Your task to perform on an android device: turn off javascript in the chrome app Image 0: 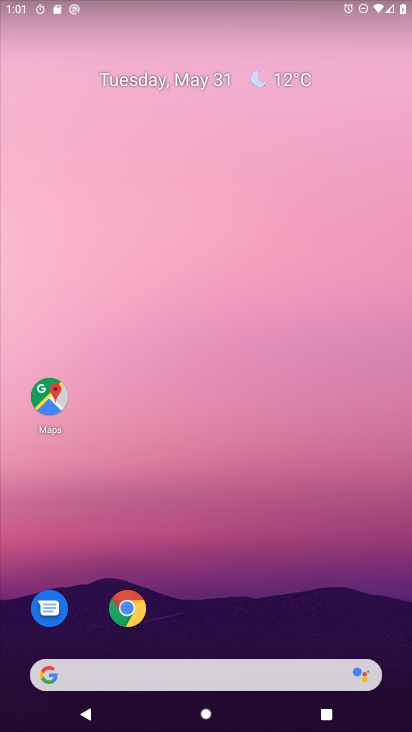
Step 0: click (122, 610)
Your task to perform on an android device: turn off javascript in the chrome app Image 1: 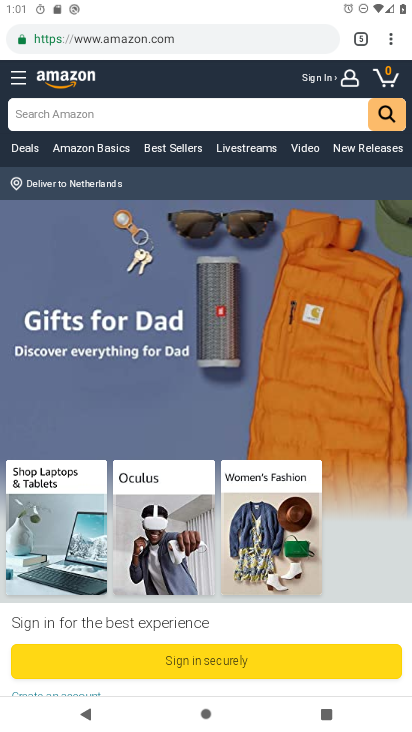
Step 1: click (389, 39)
Your task to perform on an android device: turn off javascript in the chrome app Image 2: 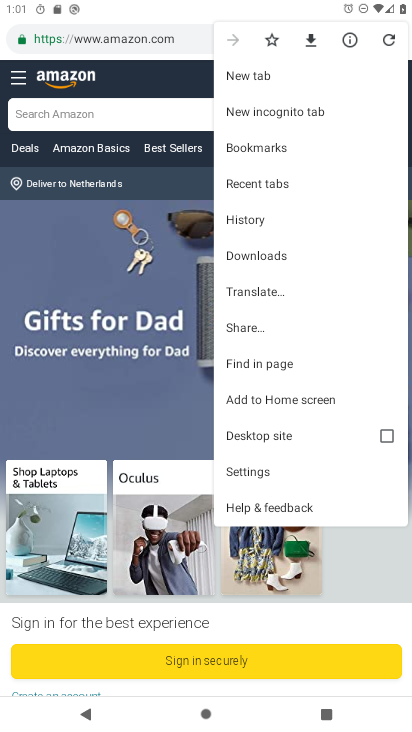
Step 2: click (252, 469)
Your task to perform on an android device: turn off javascript in the chrome app Image 3: 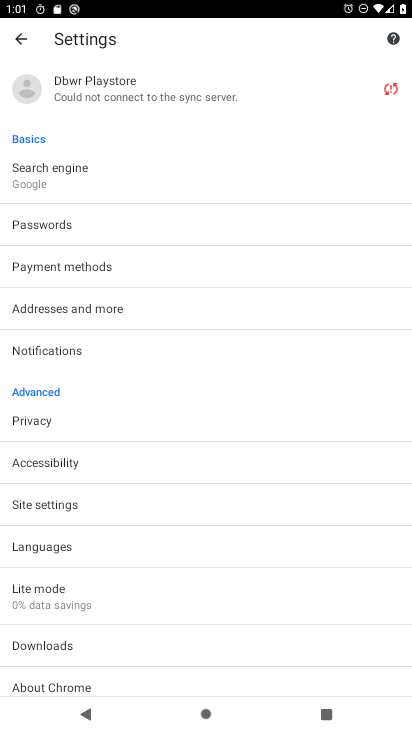
Step 3: click (58, 499)
Your task to perform on an android device: turn off javascript in the chrome app Image 4: 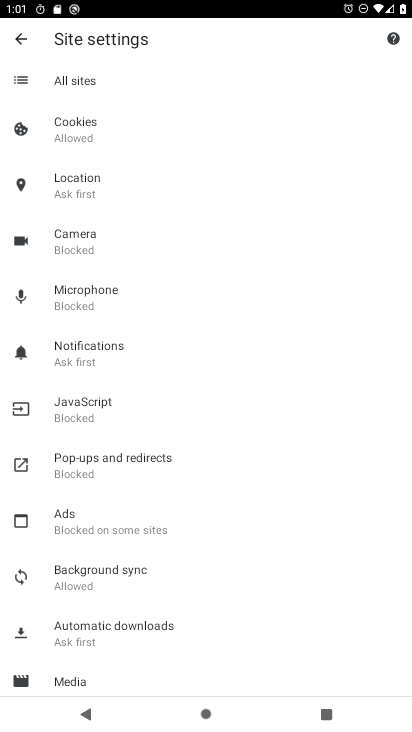
Step 4: click (89, 402)
Your task to perform on an android device: turn off javascript in the chrome app Image 5: 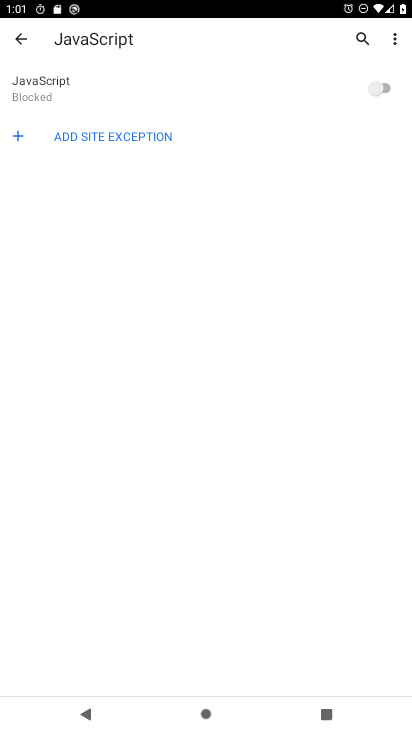
Step 5: task complete